Your task to perform on an android device: check the backup settings in the google photos Image 0: 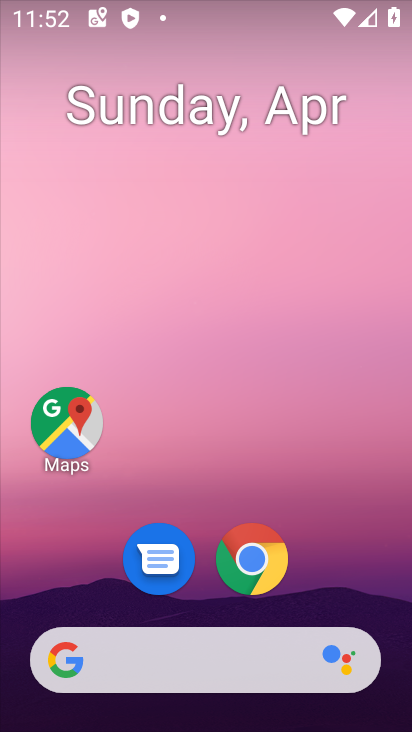
Step 0: drag from (336, 567) to (174, 16)
Your task to perform on an android device: check the backup settings in the google photos Image 1: 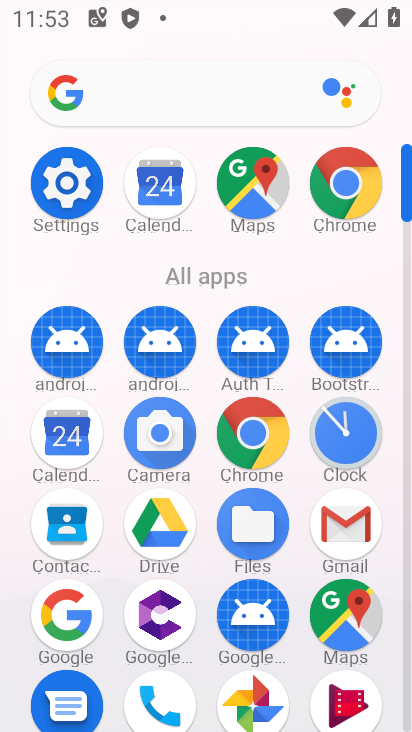
Step 1: click (237, 701)
Your task to perform on an android device: check the backup settings in the google photos Image 2: 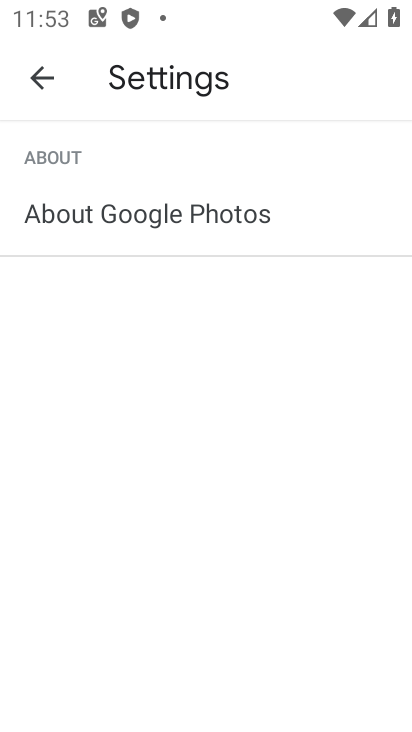
Step 2: click (24, 77)
Your task to perform on an android device: check the backup settings in the google photos Image 3: 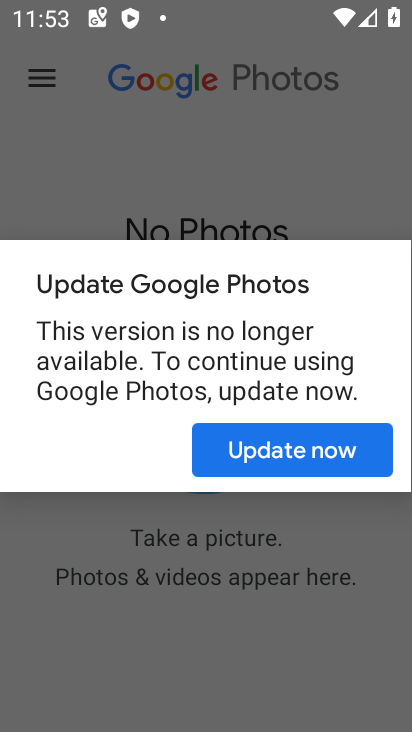
Step 3: click (242, 470)
Your task to perform on an android device: check the backup settings in the google photos Image 4: 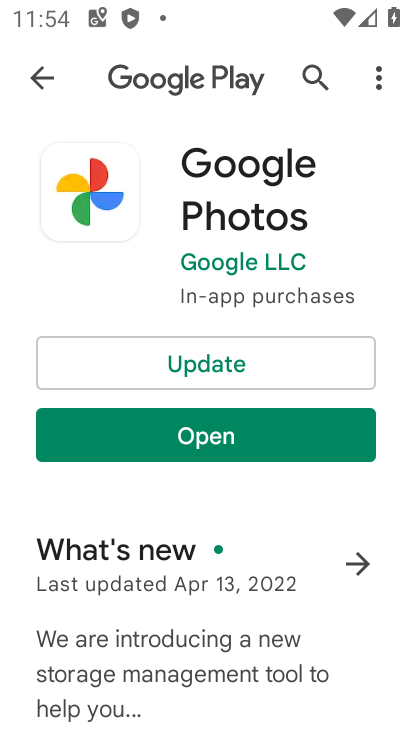
Step 4: click (264, 372)
Your task to perform on an android device: check the backup settings in the google photos Image 5: 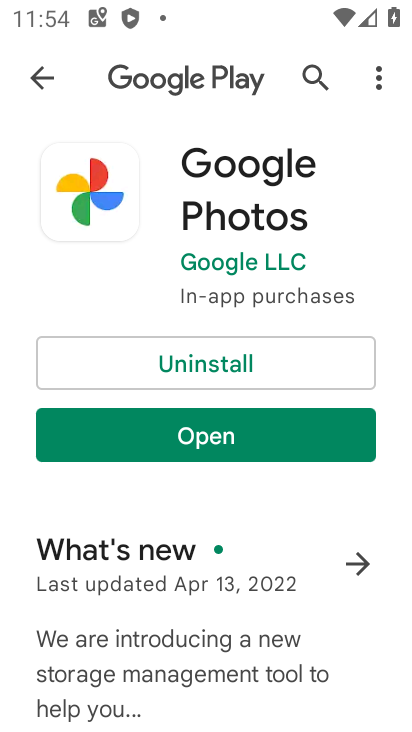
Step 5: click (242, 452)
Your task to perform on an android device: check the backup settings in the google photos Image 6: 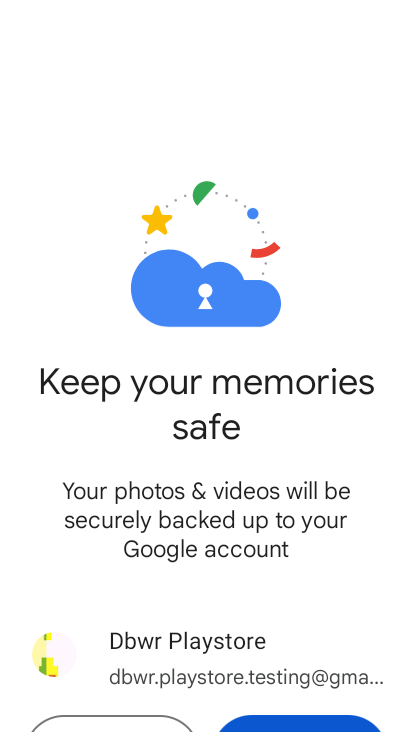
Step 6: drag from (243, 497) to (309, 203)
Your task to perform on an android device: check the backup settings in the google photos Image 7: 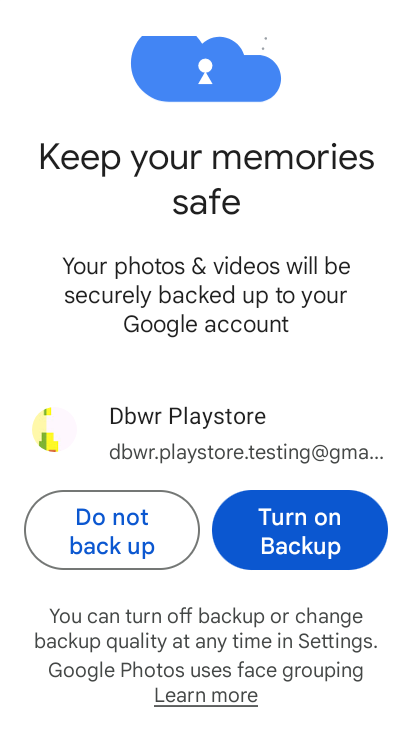
Step 7: click (314, 512)
Your task to perform on an android device: check the backup settings in the google photos Image 8: 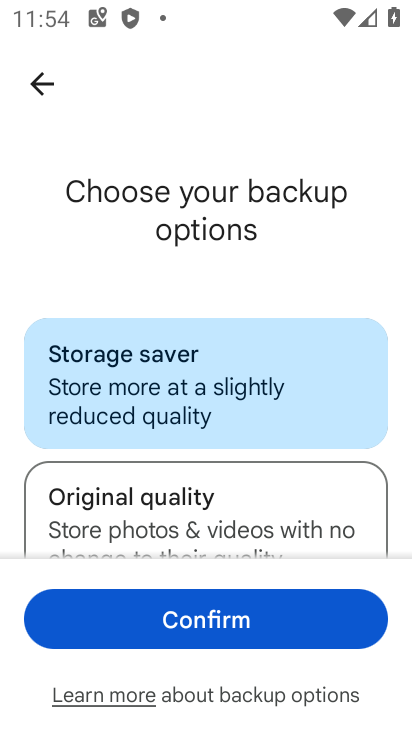
Step 8: click (335, 631)
Your task to perform on an android device: check the backup settings in the google photos Image 9: 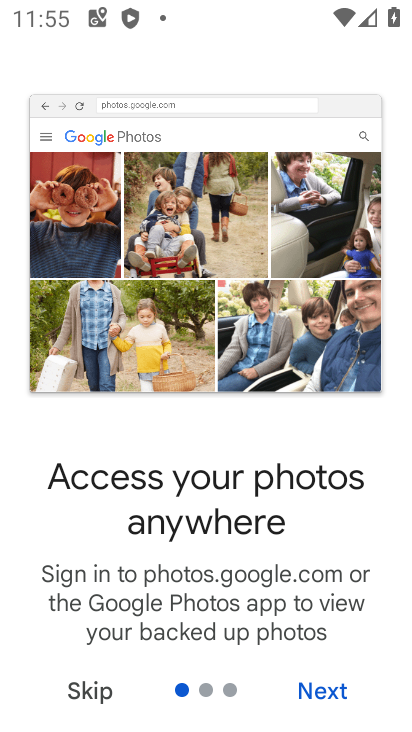
Step 9: click (323, 683)
Your task to perform on an android device: check the backup settings in the google photos Image 10: 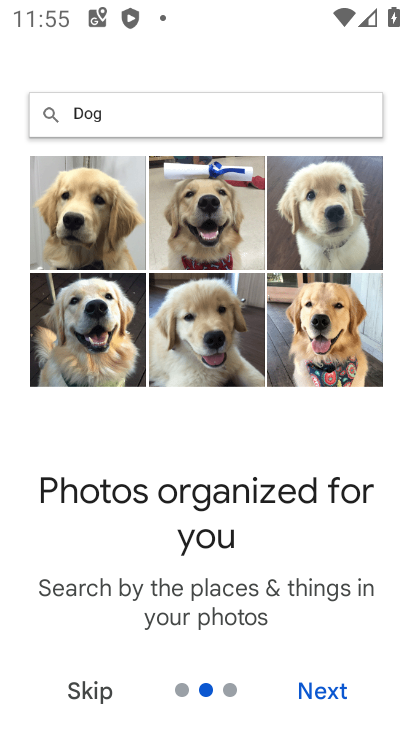
Step 10: click (323, 683)
Your task to perform on an android device: check the backup settings in the google photos Image 11: 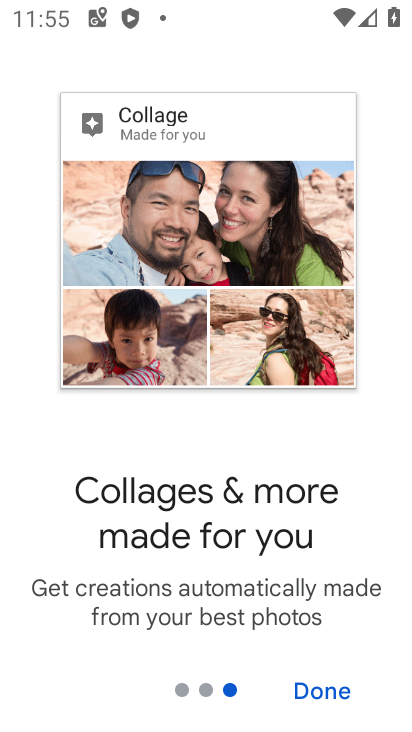
Step 11: click (323, 683)
Your task to perform on an android device: check the backup settings in the google photos Image 12: 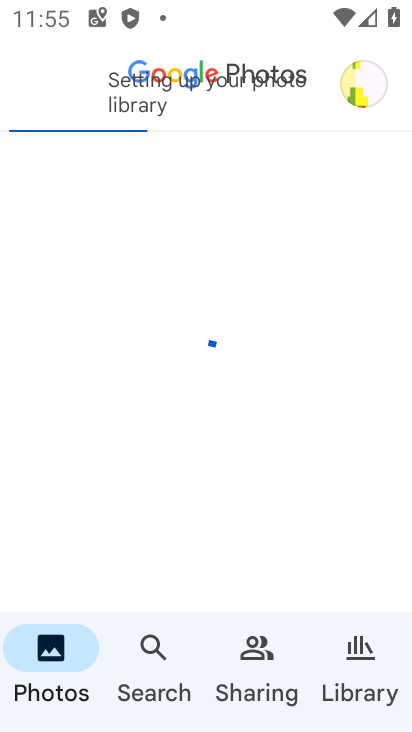
Step 12: click (376, 86)
Your task to perform on an android device: check the backup settings in the google photos Image 13: 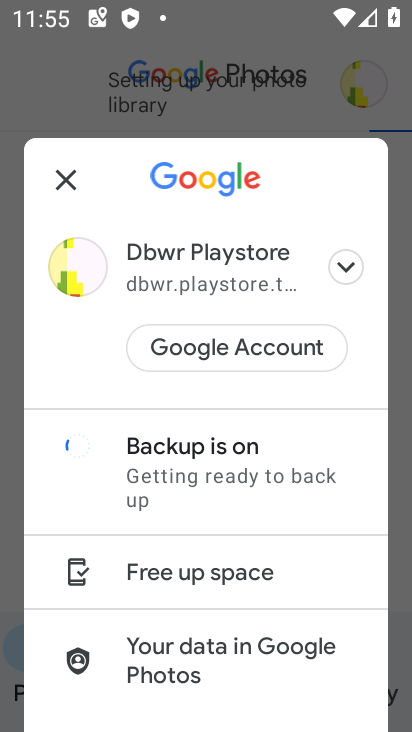
Step 13: click (240, 501)
Your task to perform on an android device: check the backup settings in the google photos Image 14: 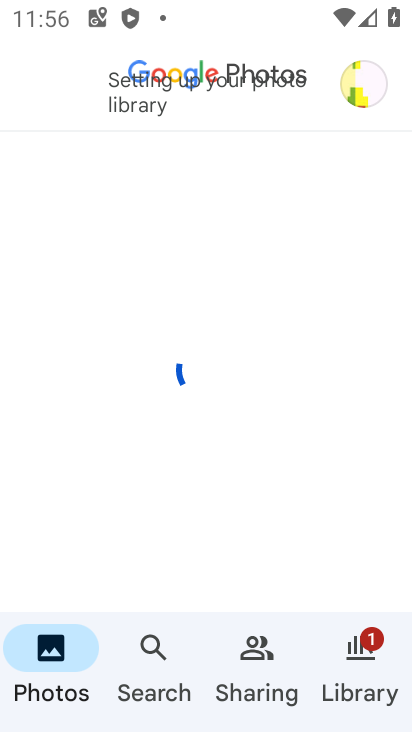
Step 14: task complete